Your task to perform on an android device: Search for pizza restaurants on Maps Image 0: 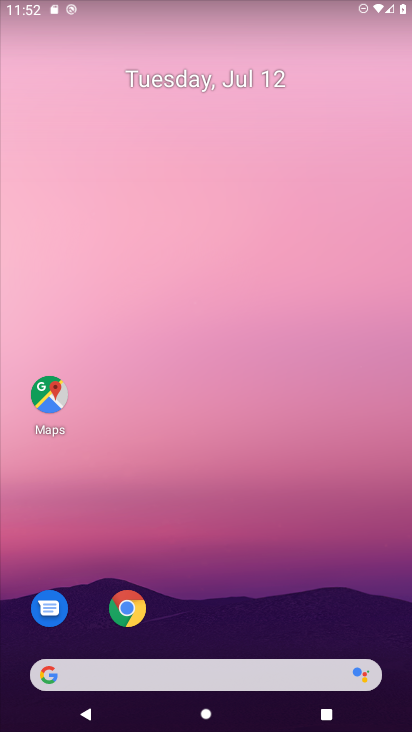
Step 0: drag from (224, 712) to (233, 114)
Your task to perform on an android device: Search for pizza restaurants on Maps Image 1: 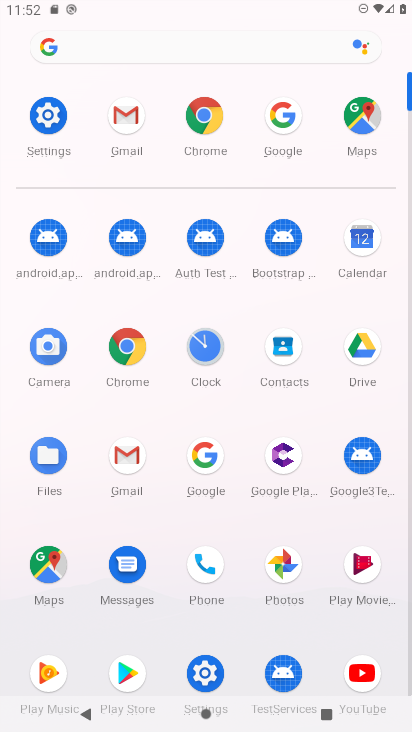
Step 1: click (45, 566)
Your task to perform on an android device: Search for pizza restaurants on Maps Image 2: 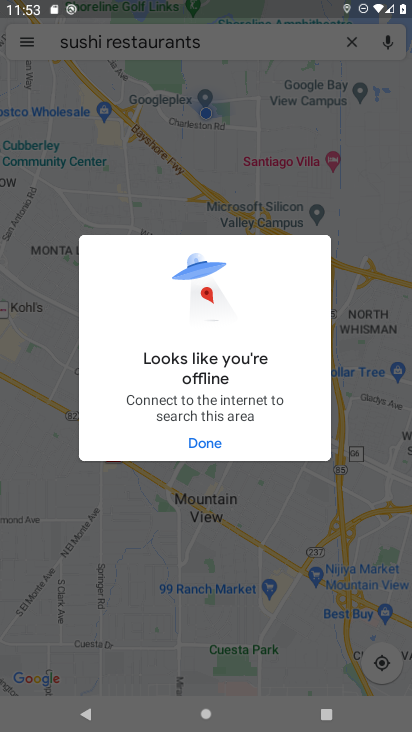
Step 2: task complete